Your task to perform on an android device: turn vacation reply on in the gmail app Image 0: 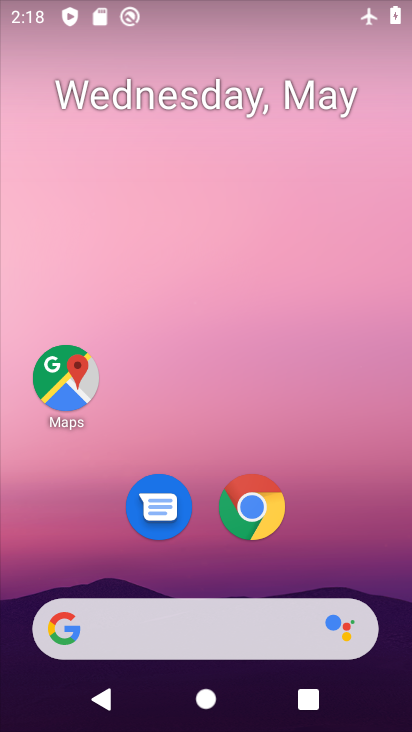
Step 0: drag from (388, 548) to (351, 134)
Your task to perform on an android device: turn vacation reply on in the gmail app Image 1: 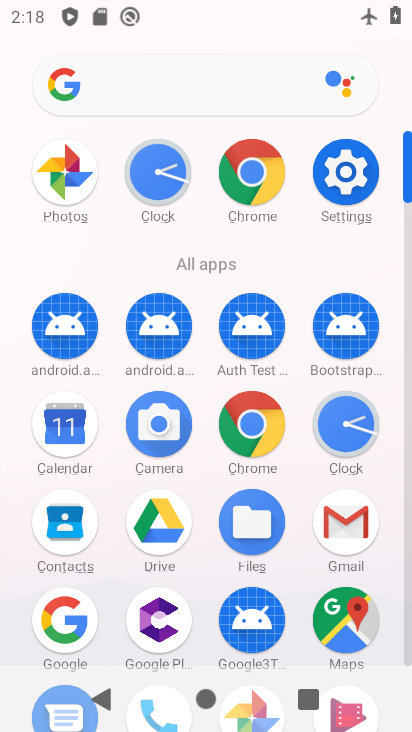
Step 1: click (327, 531)
Your task to perform on an android device: turn vacation reply on in the gmail app Image 2: 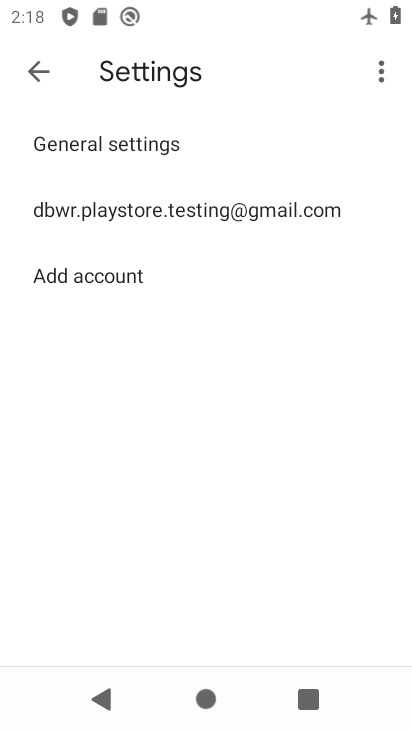
Step 2: click (214, 191)
Your task to perform on an android device: turn vacation reply on in the gmail app Image 3: 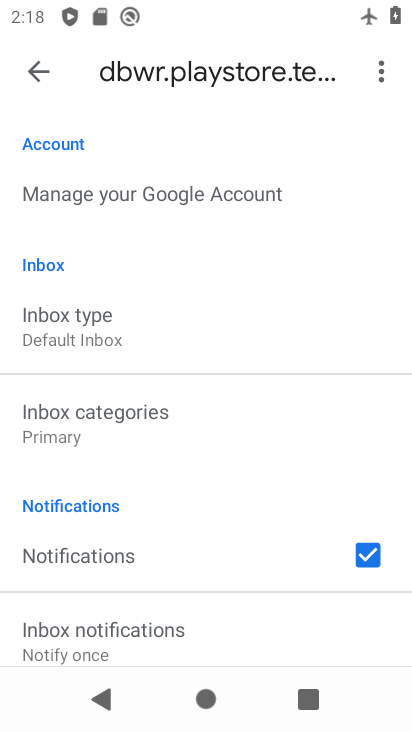
Step 3: task complete